Your task to perform on an android device: Go to notification settings Image 0: 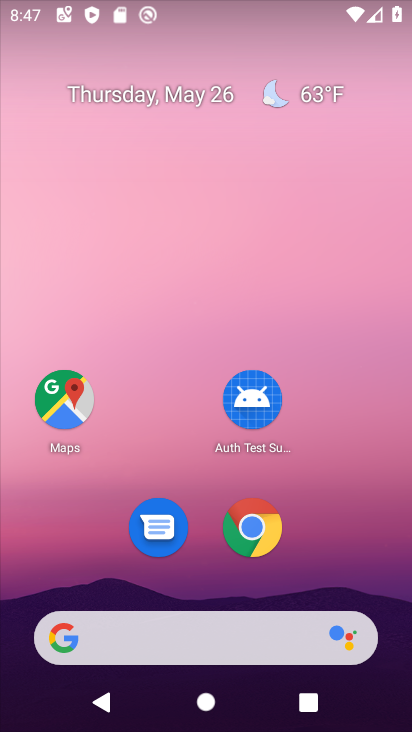
Step 0: drag from (377, 544) to (344, 90)
Your task to perform on an android device: Go to notification settings Image 1: 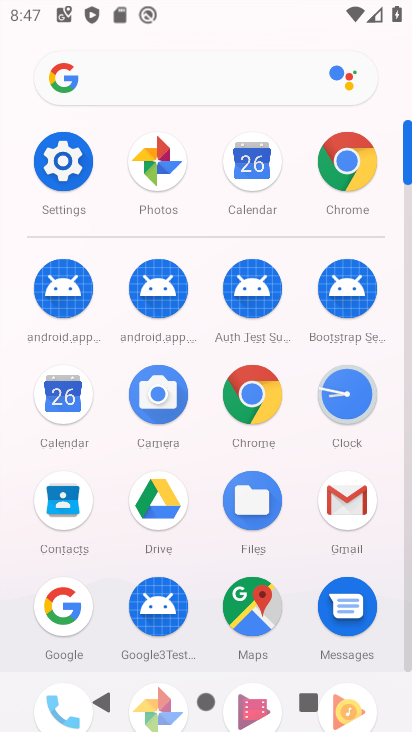
Step 1: click (63, 154)
Your task to perform on an android device: Go to notification settings Image 2: 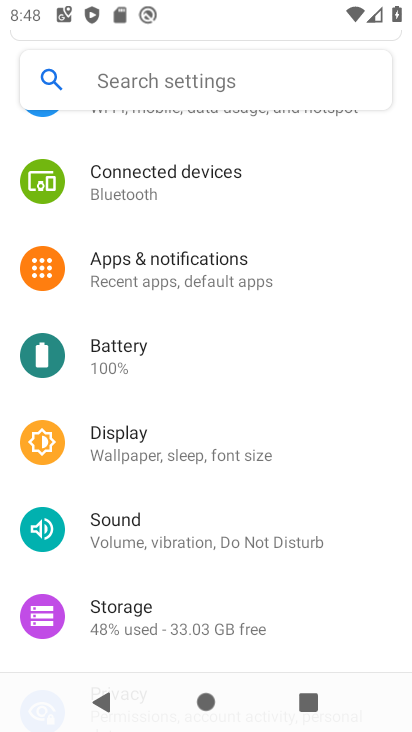
Step 2: click (221, 279)
Your task to perform on an android device: Go to notification settings Image 3: 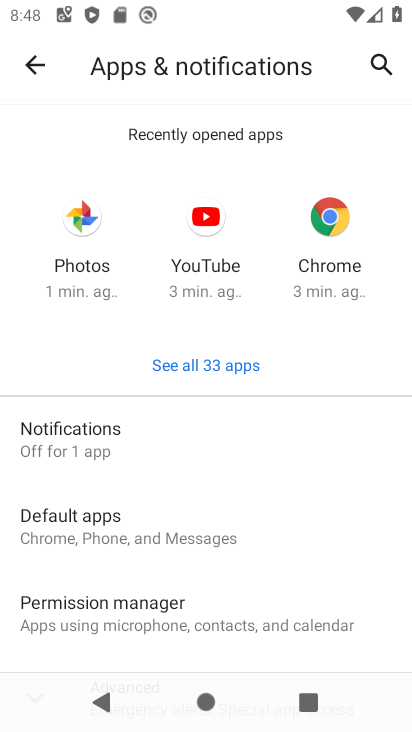
Step 3: click (96, 437)
Your task to perform on an android device: Go to notification settings Image 4: 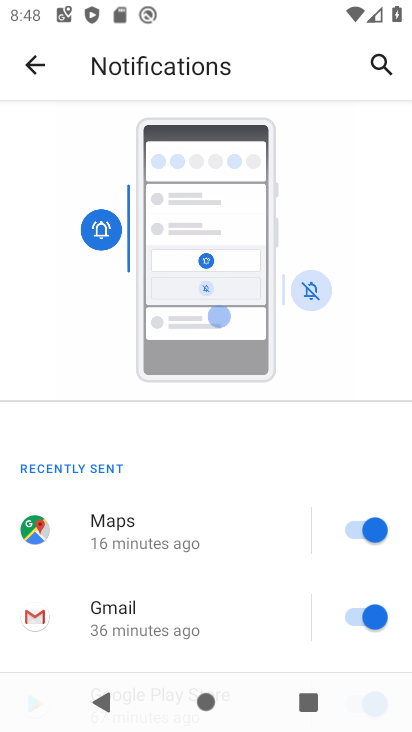
Step 4: task complete